Your task to perform on an android device: change alarm snooze length Image 0: 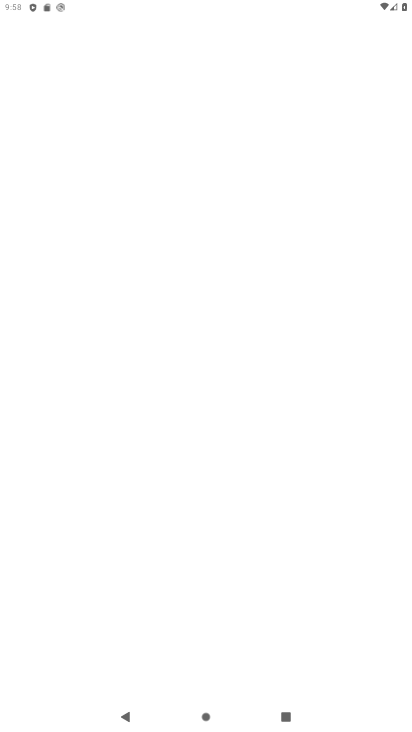
Step 0: press home button
Your task to perform on an android device: change alarm snooze length Image 1: 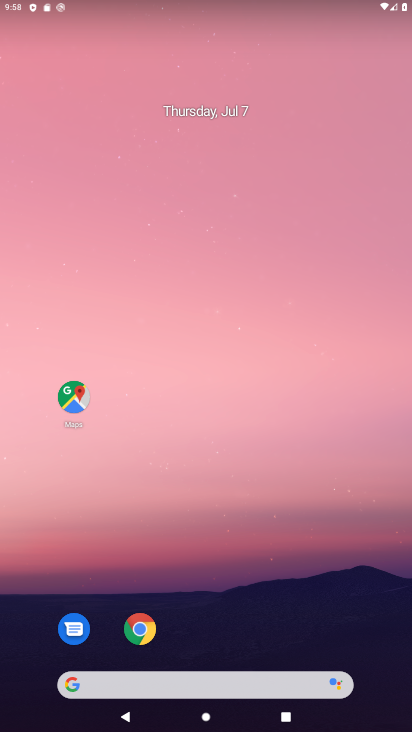
Step 1: drag from (232, 625) to (221, 91)
Your task to perform on an android device: change alarm snooze length Image 2: 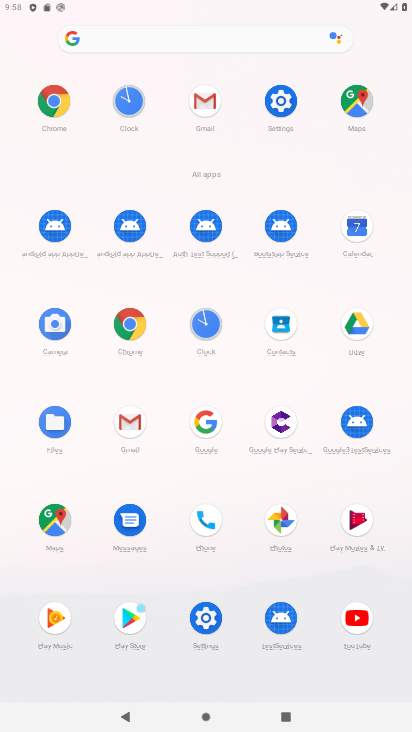
Step 2: click (134, 93)
Your task to perform on an android device: change alarm snooze length Image 3: 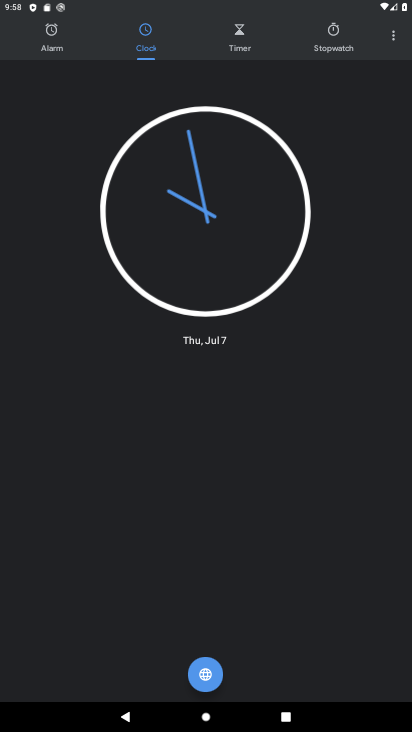
Step 3: click (394, 44)
Your task to perform on an android device: change alarm snooze length Image 4: 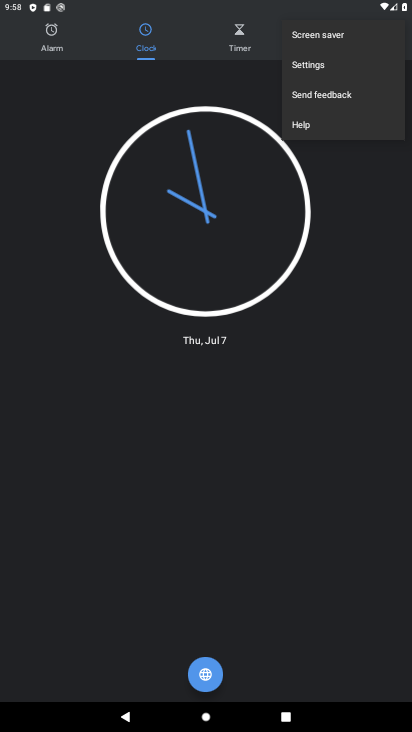
Step 4: click (309, 62)
Your task to perform on an android device: change alarm snooze length Image 5: 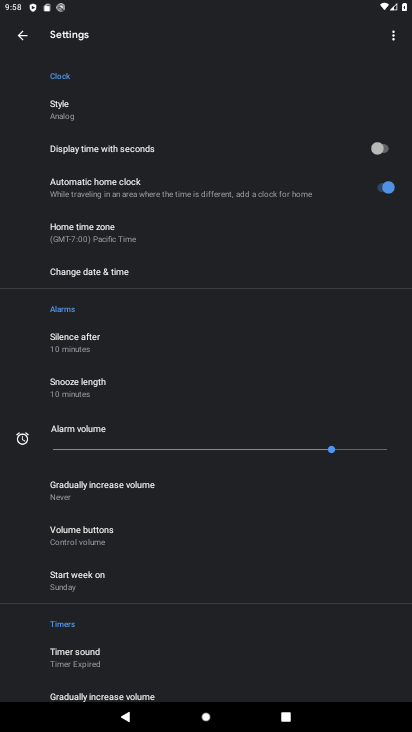
Step 5: click (82, 383)
Your task to perform on an android device: change alarm snooze length Image 6: 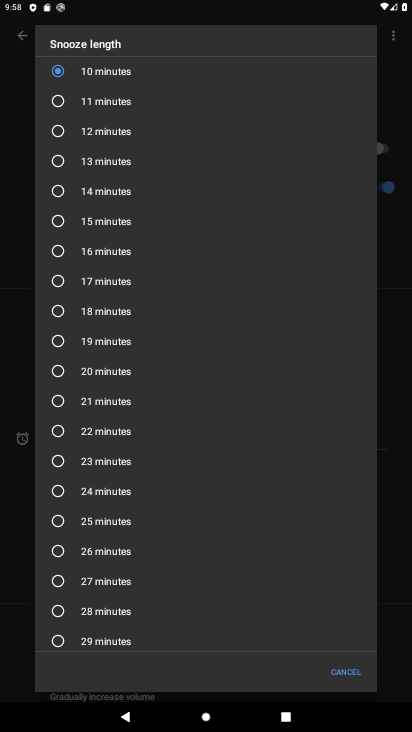
Step 6: click (68, 250)
Your task to perform on an android device: change alarm snooze length Image 7: 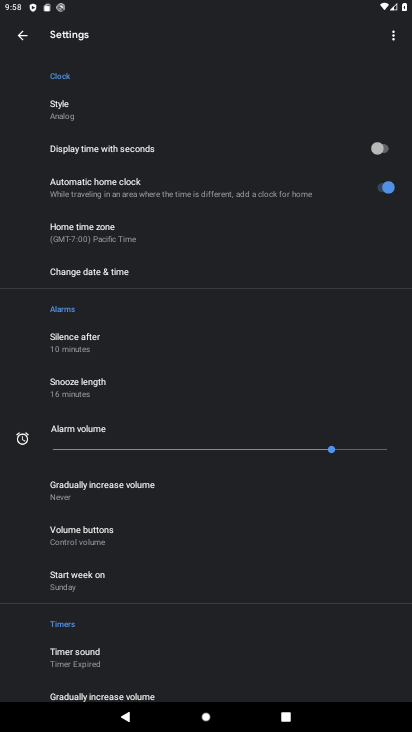
Step 7: task complete